Your task to perform on an android device: turn on data saver in the chrome app Image 0: 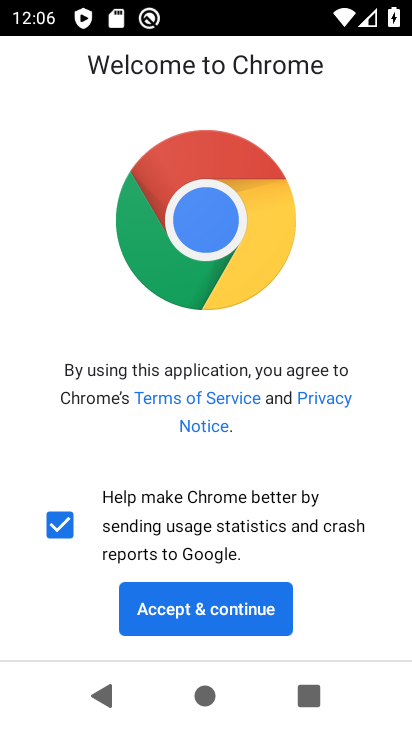
Step 0: click (188, 619)
Your task to perform on an android device: turn on data saver in the chrome app Image 1: 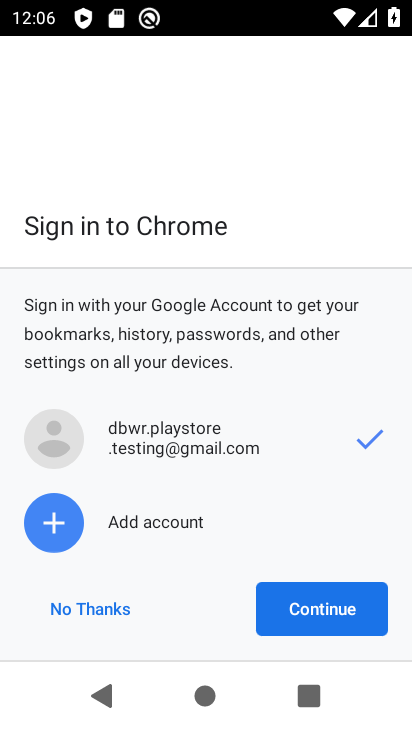
Step 1: click (333, 604)
Your task to perform on an android device: turn on data saver in the chrome app Image 2: 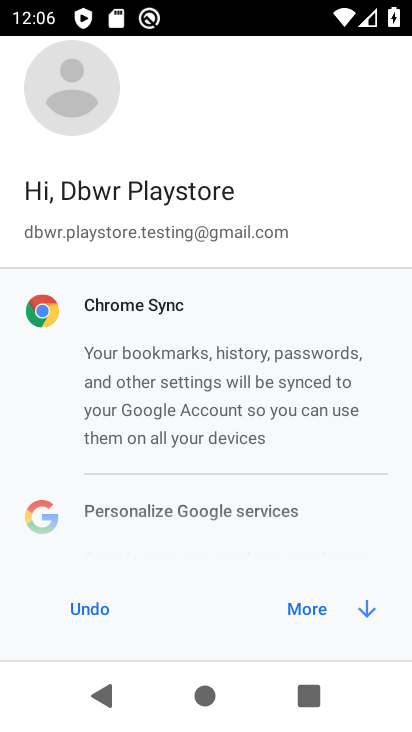
Step 2: click (296, 624)
Your task to perform on an android device: turn on data saver in the chrome app Image 3: 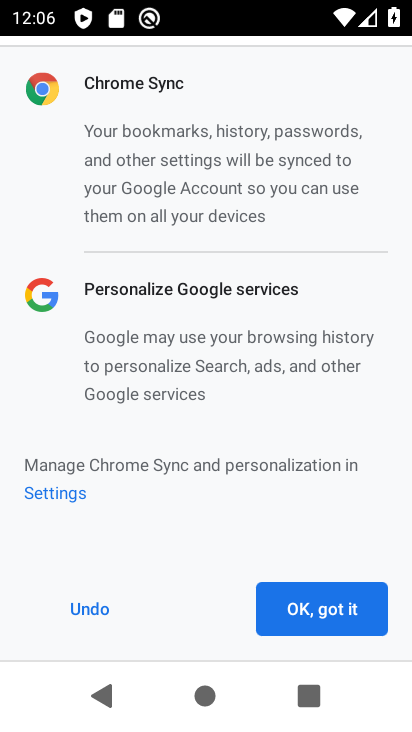
Step 3: click (335, 619)
Your task to perform on an android device: turn on data saver in the chrome app Image 4: 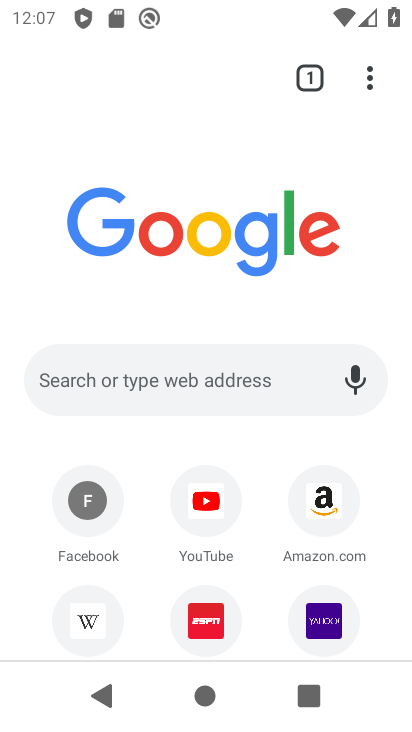
Step 4: click (357, 78)
Your task to perform on an android device: turn on data saver in the chrome app Image 5: 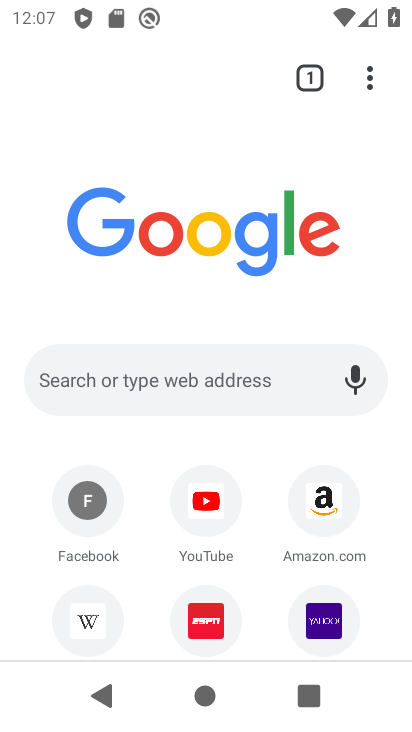
Step 5: drag from (363, 83) to (85, 550)
Your task to perform on an android device: turn on data saver in the chrome app Image 6: 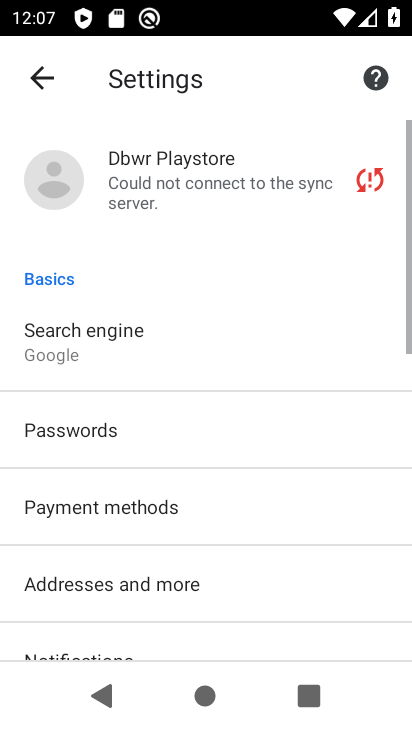
Step 6: drag from (156, 549) to (272, 90)
Your task to perform on an android device: turn on data saver in the chrome app Image 7: 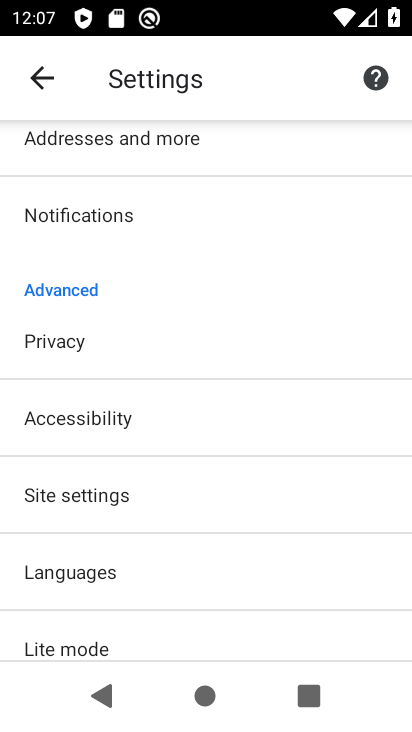
Step 7: click (94, 639)
Your task to perform on an android device: turn on data saver in the chrome app Image 8: 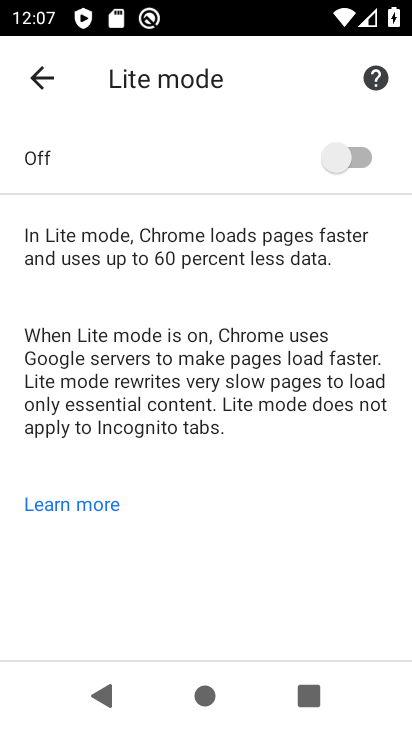
Step 8: click (350, 155)
Your task to perform on an android device: turn on data saver in the chrome app Image 9: 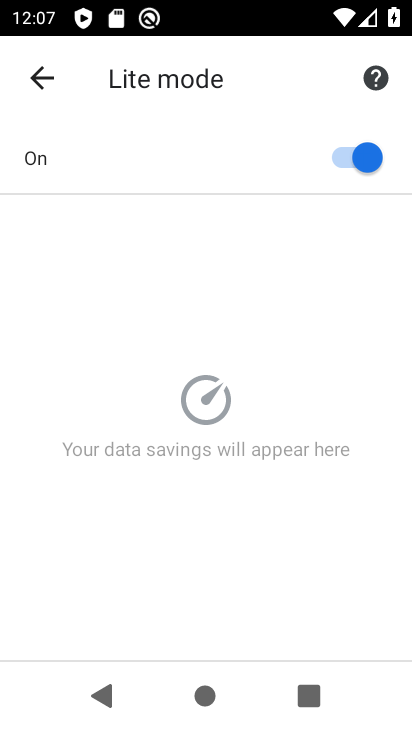
Step 9: task complete